Your task to perform on an android device: Open Yahoo.com Image 0: 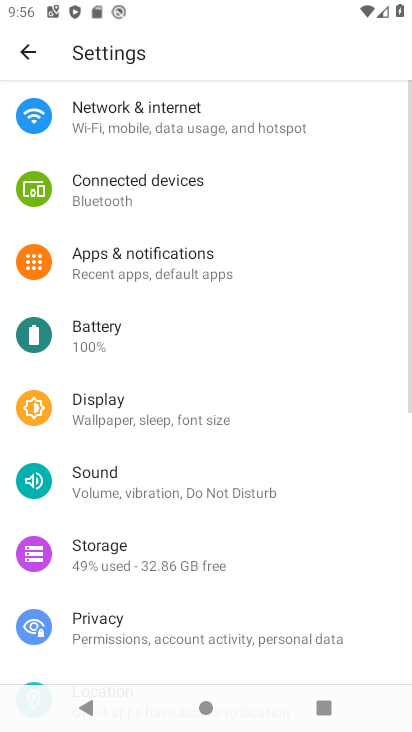
Step 0: press home button
Your task to perform on an android device: Open Yahoo.com Image 1: 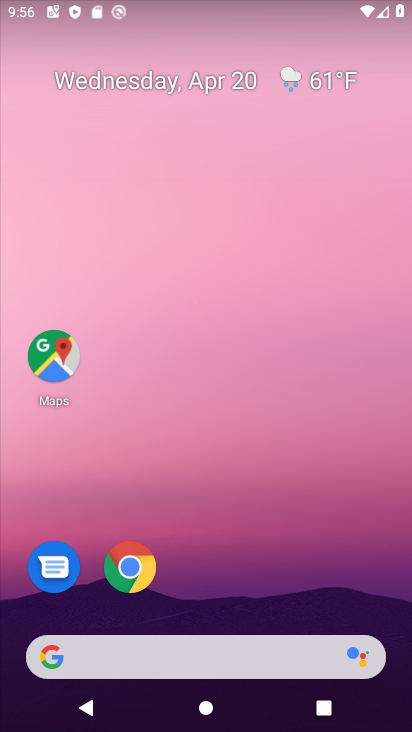
Step 1: click (194, 641)
Your task to perform on an android device: Open Yahoo.com Image 2: 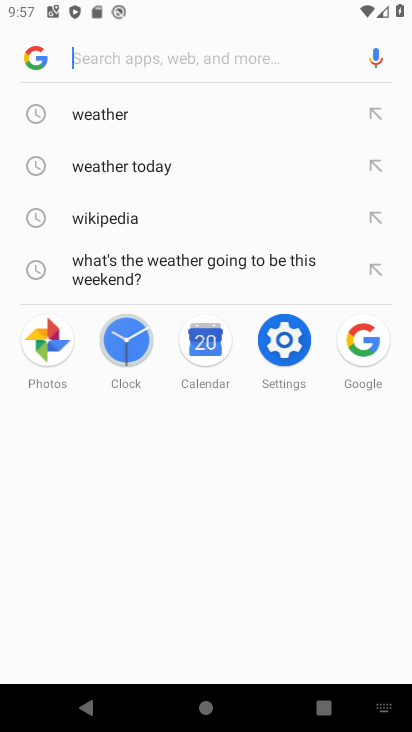
Step 2: type "Yahoo.com"
Your task to perform on an android device: Open Yahoo.com Image 3: 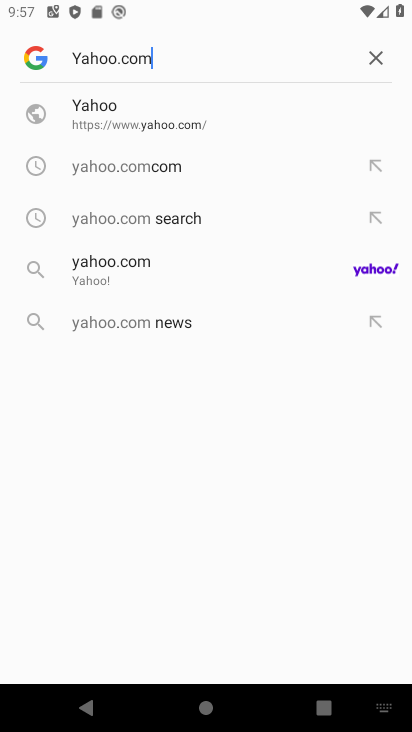
Step 3: click (192, 107)
Your task to perform on an android device: Open Yahoo.com Image 4: 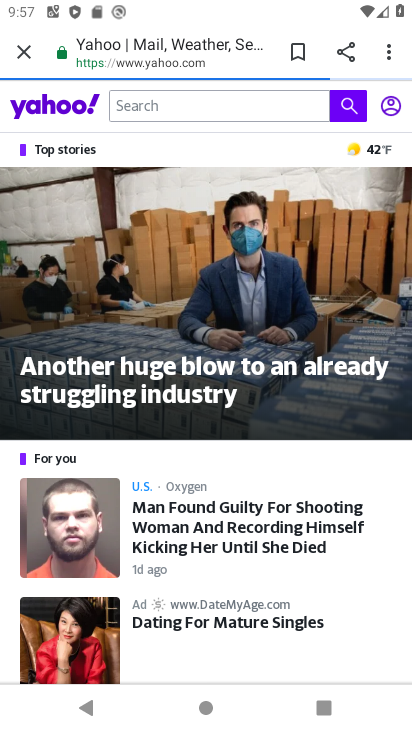
Step 4: task complete